Your task to perform on an android device: Open the calendar and show me this week's events? Image 0: 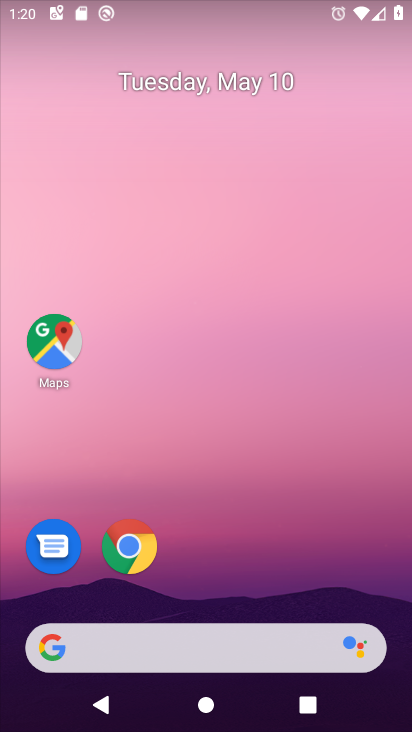
Step 0: press home button
Your task to perform on an android device: Open the calendar and show me this week's events? Image 1: 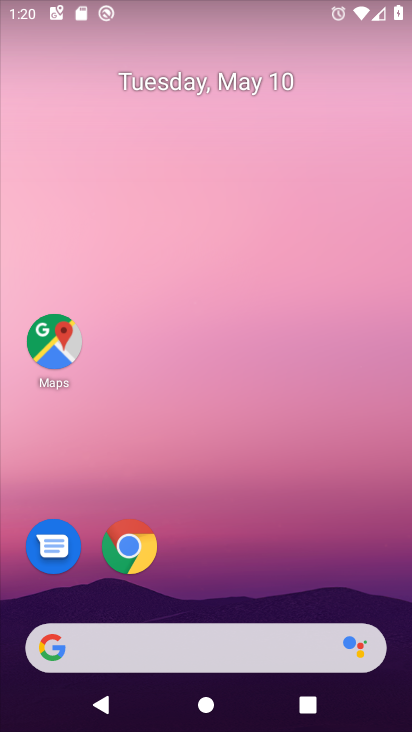
Step 1: drag from (228, 569) to (252, 87)
Your task to perform on an android device: Open the calendar and show me this week's events? Image 2: 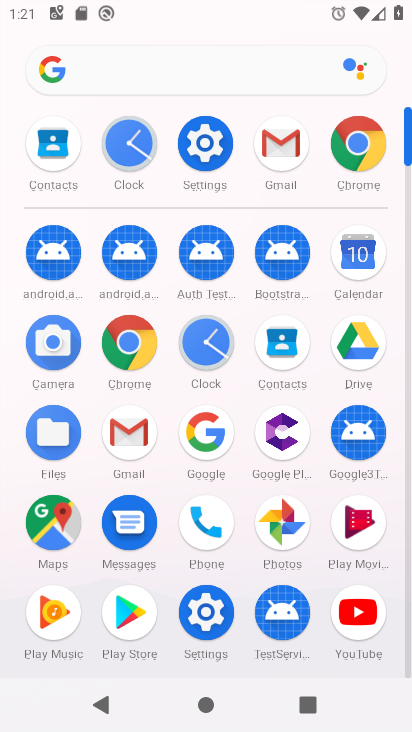
Step 2: click (363, 253)
Your task to perform on an android device: Open the calendar and show me this week's events? Image 3: 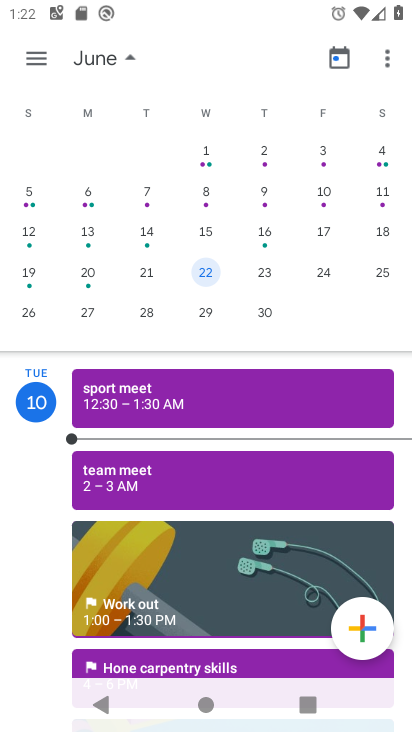
Step 3: task complete